Your task to perform on an android device: Go to network settings Image 0: 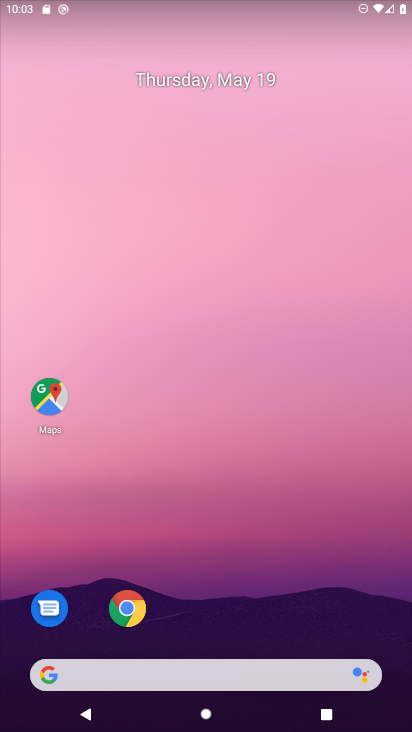
Step 0: drag from (196, 364) to (203, 77)
Your task to perform on an android device: Go to network settings Image 1: 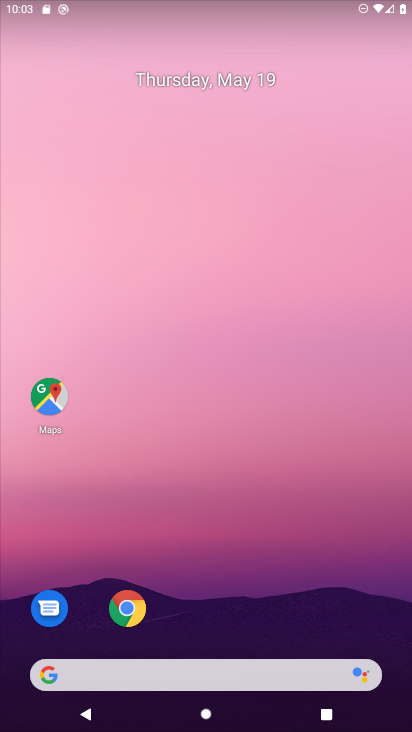
Step 1: drag from (271, 629) to (252, 44)
Your task to perform on an android device: Go to network settings Image 2: 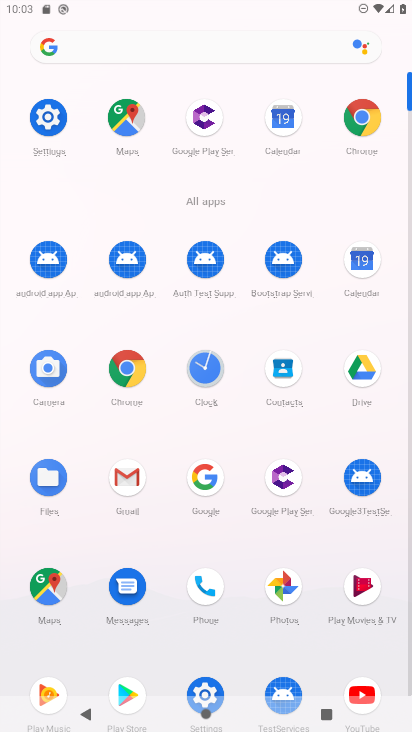
Step 2: click (40, 127)
Your task to perform on an android device: Go to network settings Image 3: 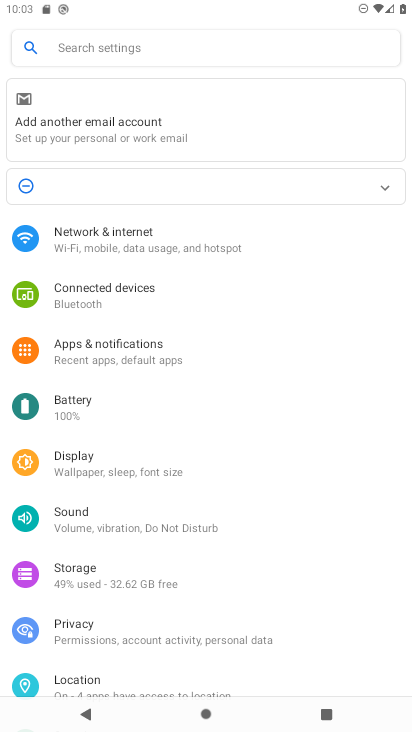
Step 3: click (132, 245)
Your task to perform on an android device: Go to network settings Image 4: 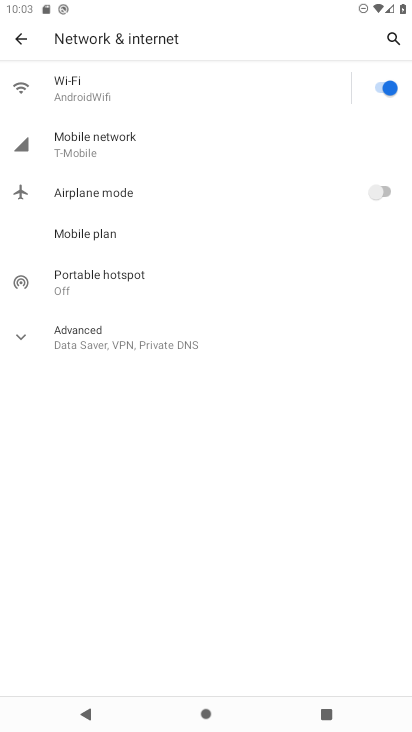
Step 4: task complete